Your task to perform on an android device: change text size in settings app Image 0: 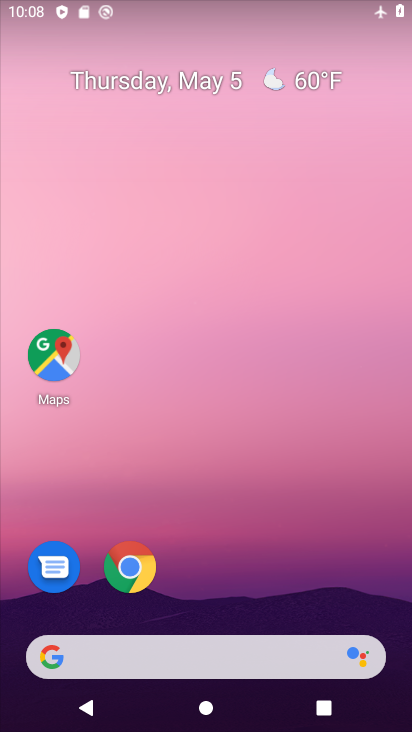
Step 0: drag from (235, 583) to (273, 201)
Your task to perform on an android device: change text size in settings app Image 1: 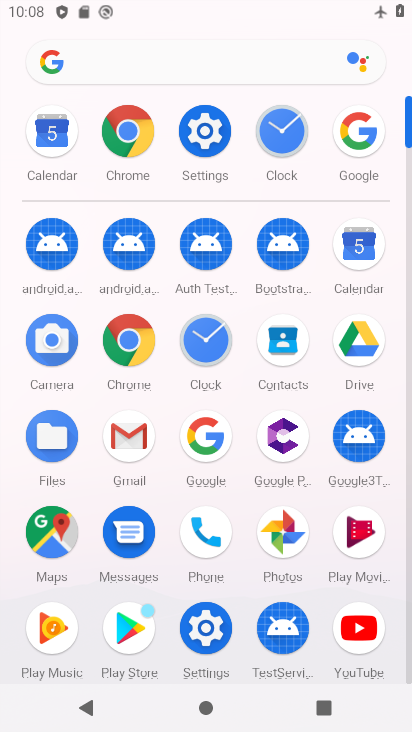
Step 1: click (214, 126)
Your task to perform on an android device: change text size in settings app Image 2: 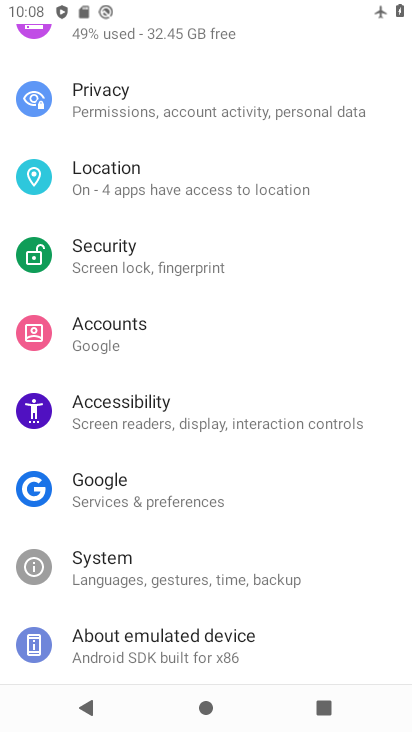
Step 2: drag from (192, 194) to (175, 588)
Your task to perform on an android device: change text size in settings app Image 3: 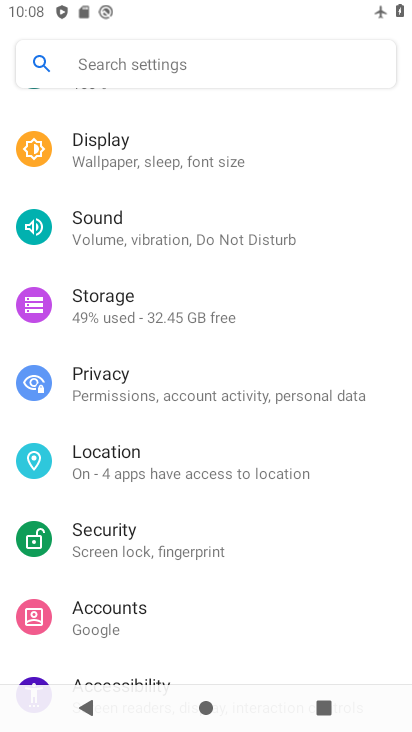
Step 3: click (146, 156)
Your task to perform on an android device: change text size in settings app Image 4: 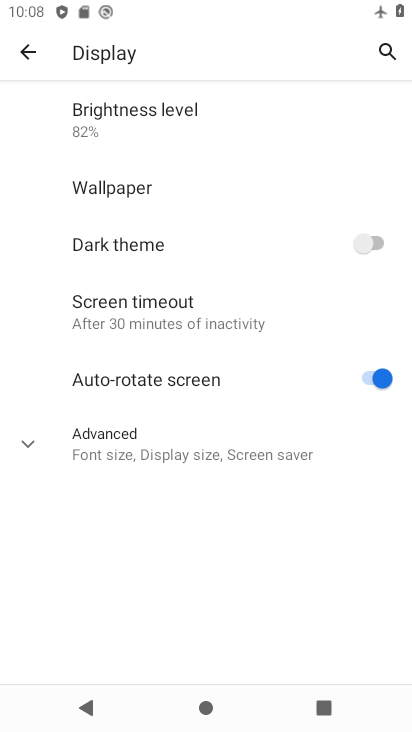
Step 4: click (158, 454)
Your task to perform on an android device: change text size in settings app Image 5: 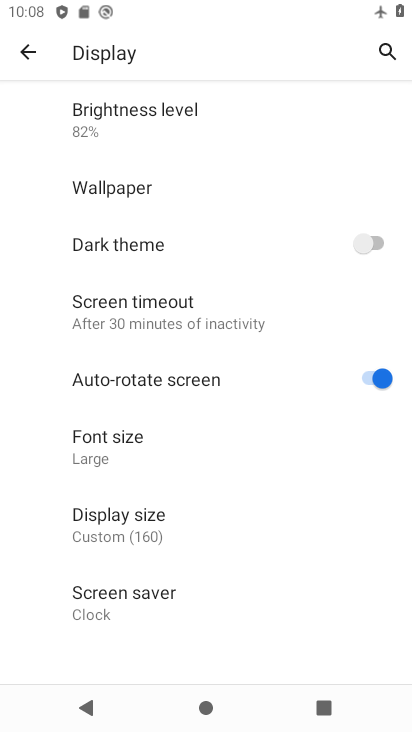
Step 5: click (163, 450)
Your task to perform on an android device: change text size in settings app Image 6: 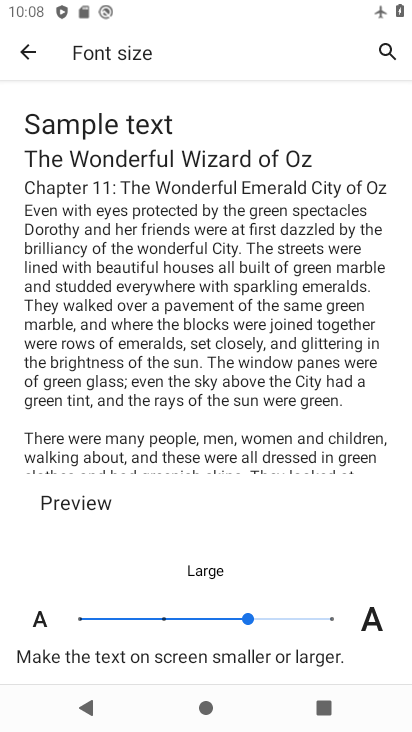
Step 6: click (171, 620)
Your task to perform on an android device: change text size in settings app Image 7: 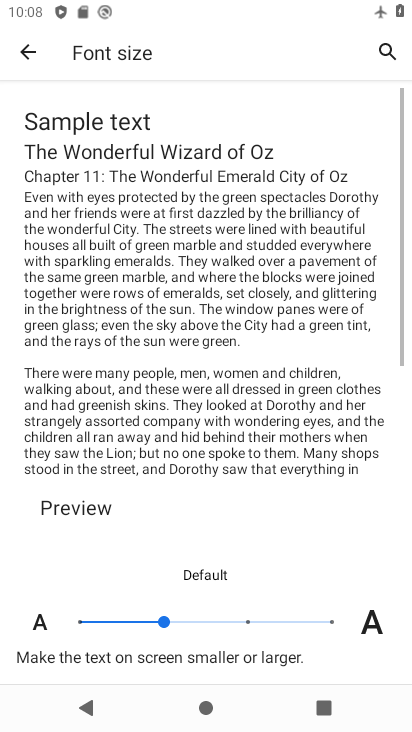
Step 7: task complete